Your task to perform on an android device: Go to notification settings Image 0: 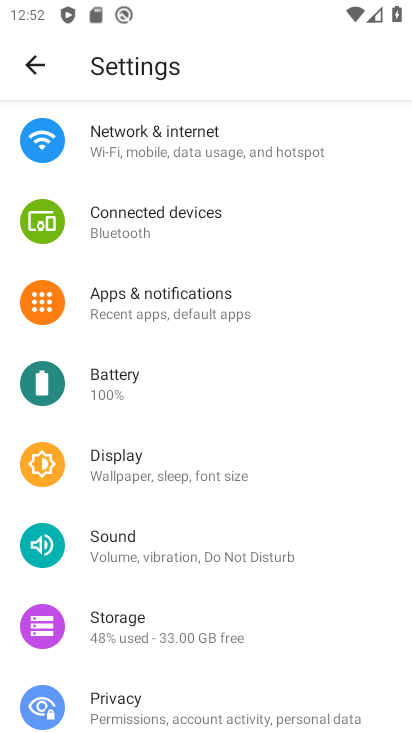
Step 0: click (210, 311)
Your task to perform on an android device: Go to notification settings Image 1: 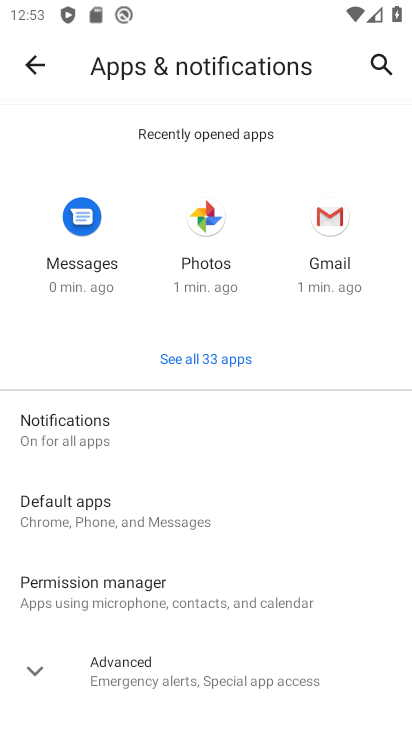
Step 1: click (82, 428)
Your task to perform on an android device: Go to notification settings Image 2: 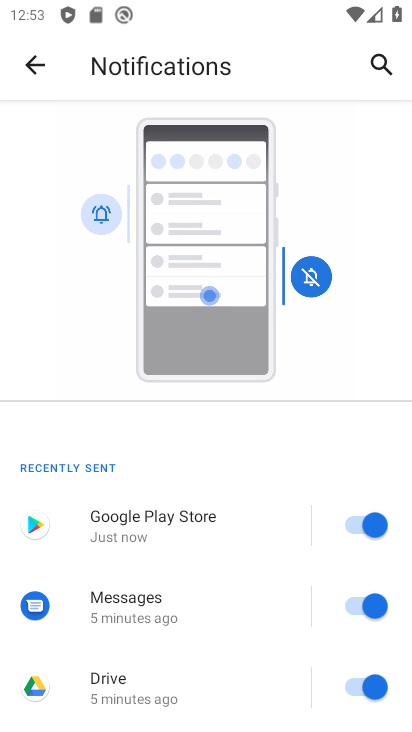
Step 2: task complete